Your task to perform on an android device: open a new tab in the chrome app Image 0: 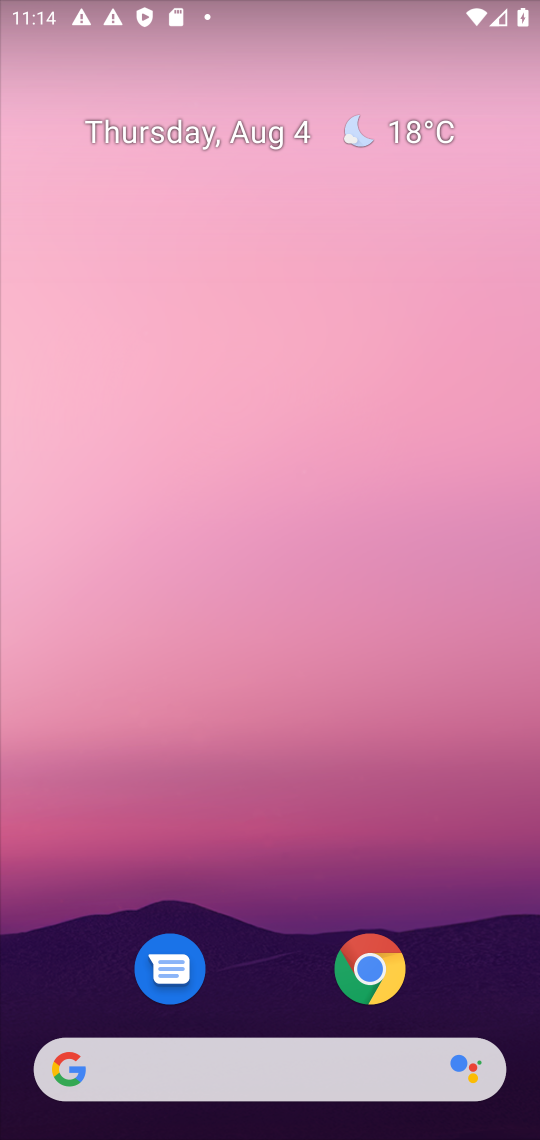
Step 0: drag from (278, 1066) to (232, 331)
Your task to perform on an android device: open a new tab in the chrome app Image 1: 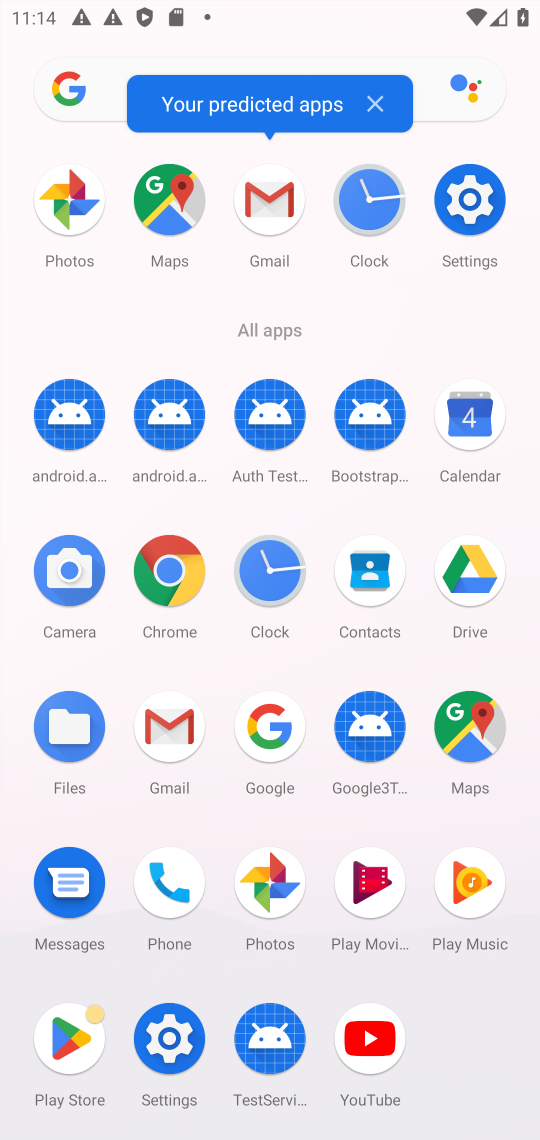
Step 1: click (161, 613)
Your task to perform on an android device: open a new tab in the chrome app Image 2: 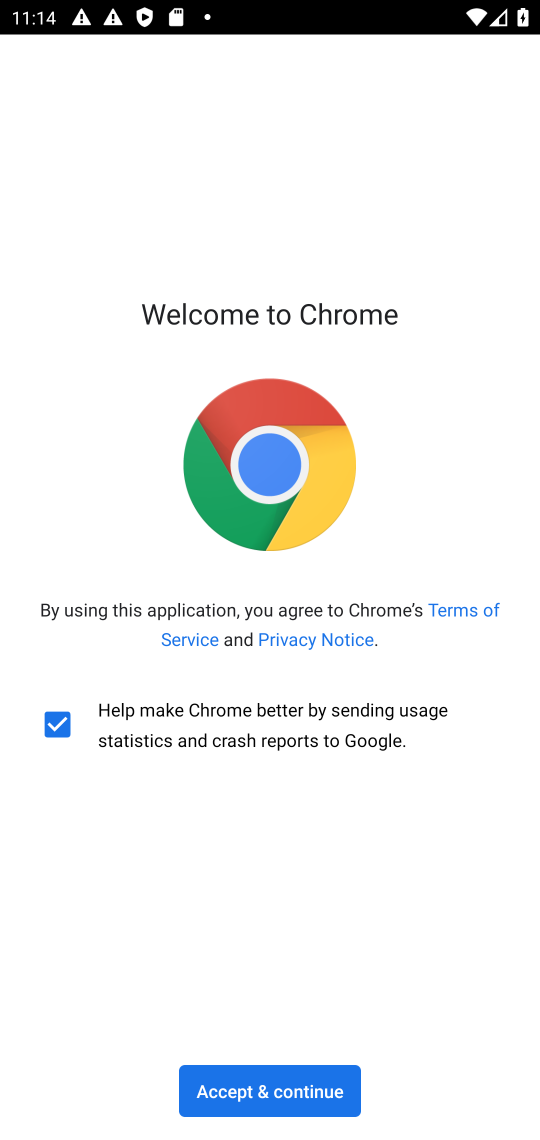
Step 2: click (287, 1086)
Your task to perform on an android device: open a new tab in the chrome app Image 3: 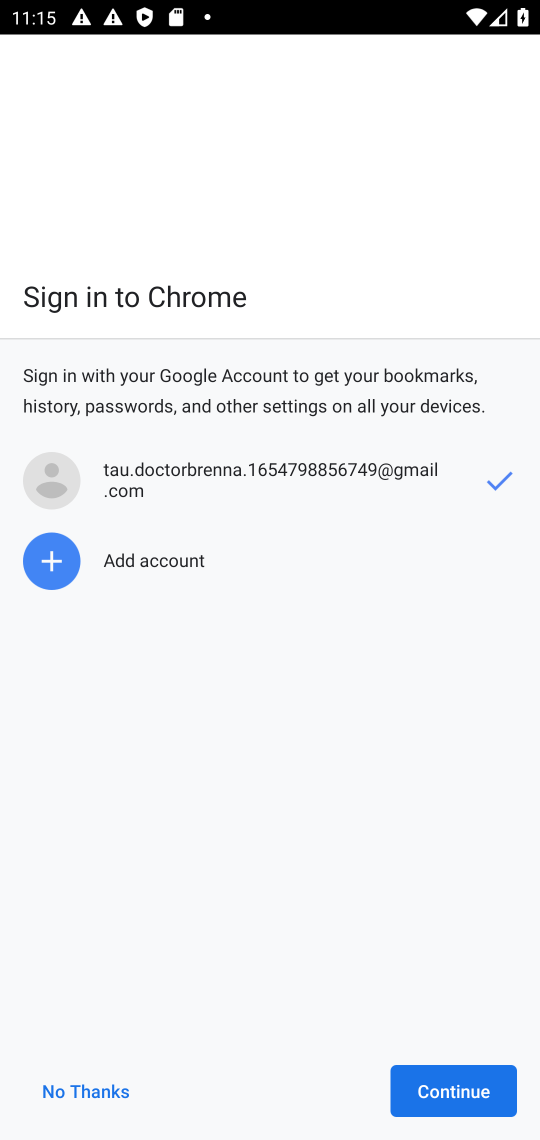
Step 3: click (403, 1082)
Your task to perform on an android device: open a new tab in the chrome app Image 4: 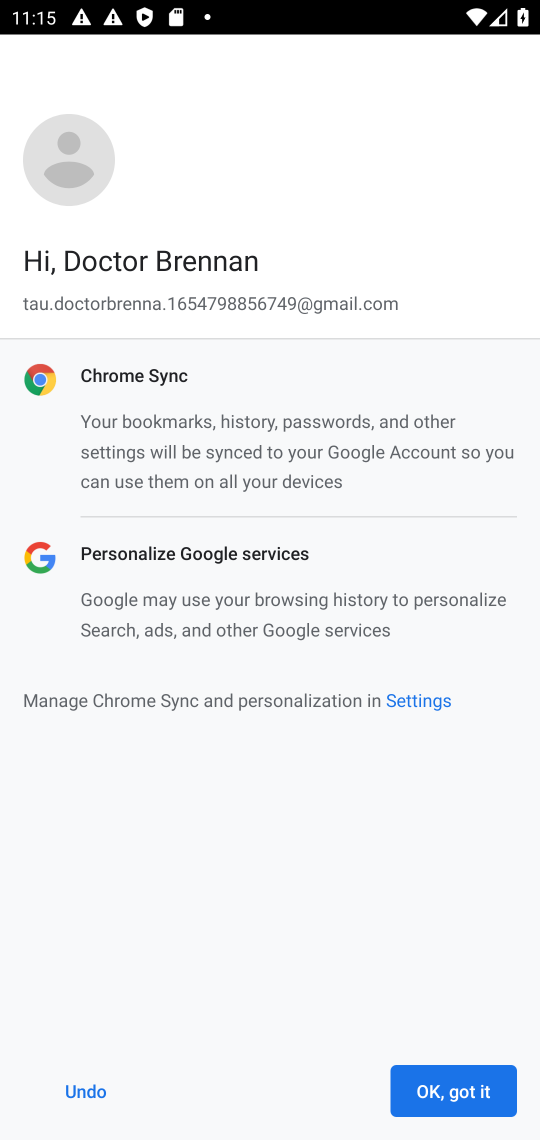
Step 4: click (412, 1075)
Your task to perform on an android device: open a new tab in the chrome app Image 5: 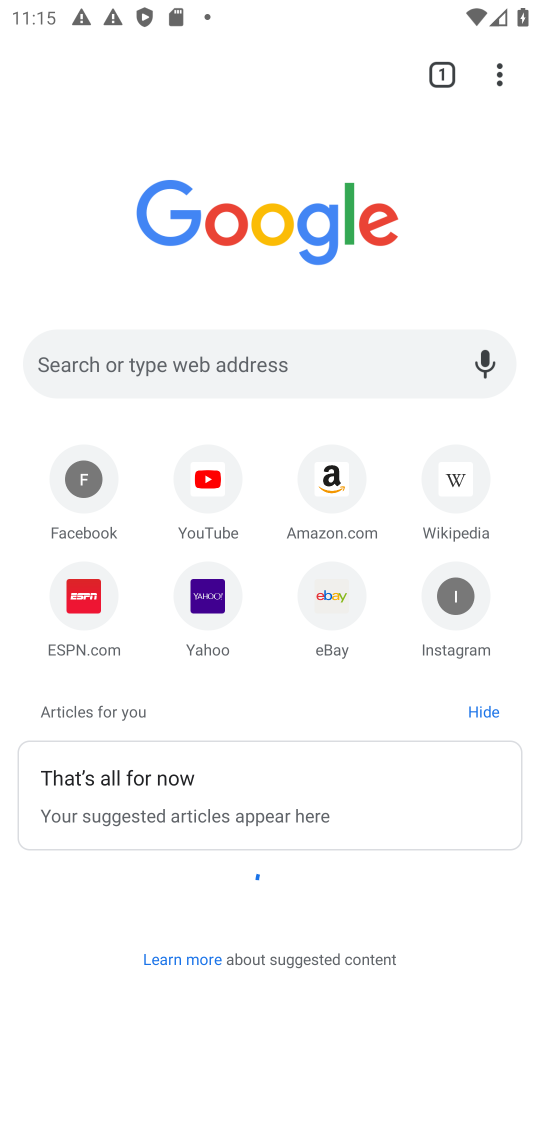
Step 5: click (443, 92)
Your task to perform on an android device: open a new tab in the chrome app Image 6: 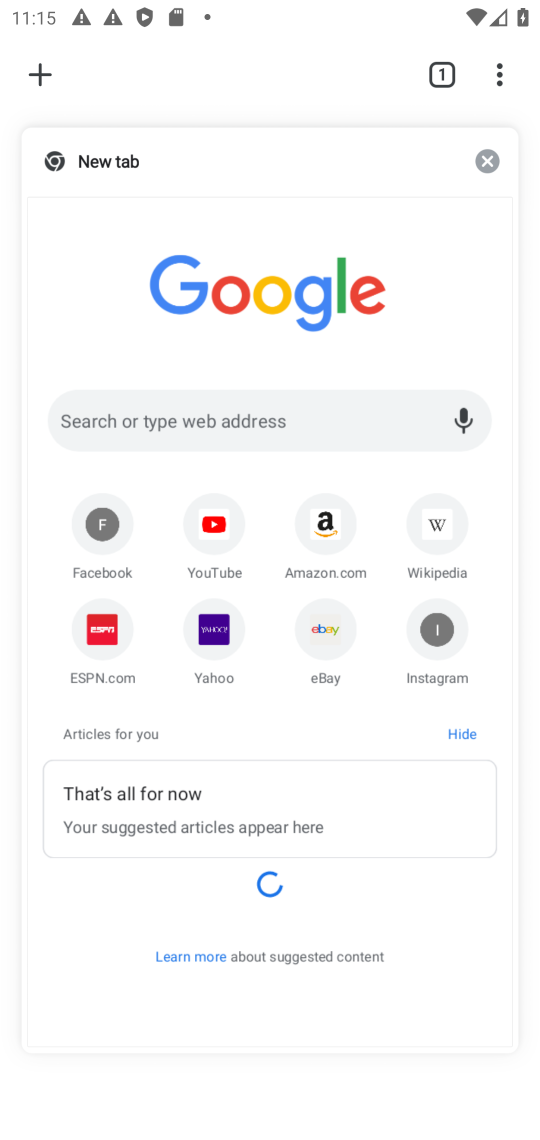
Step 6: click (32, 81)
Your task to perform on an android device: open a new tab in the chrome app Image 7: 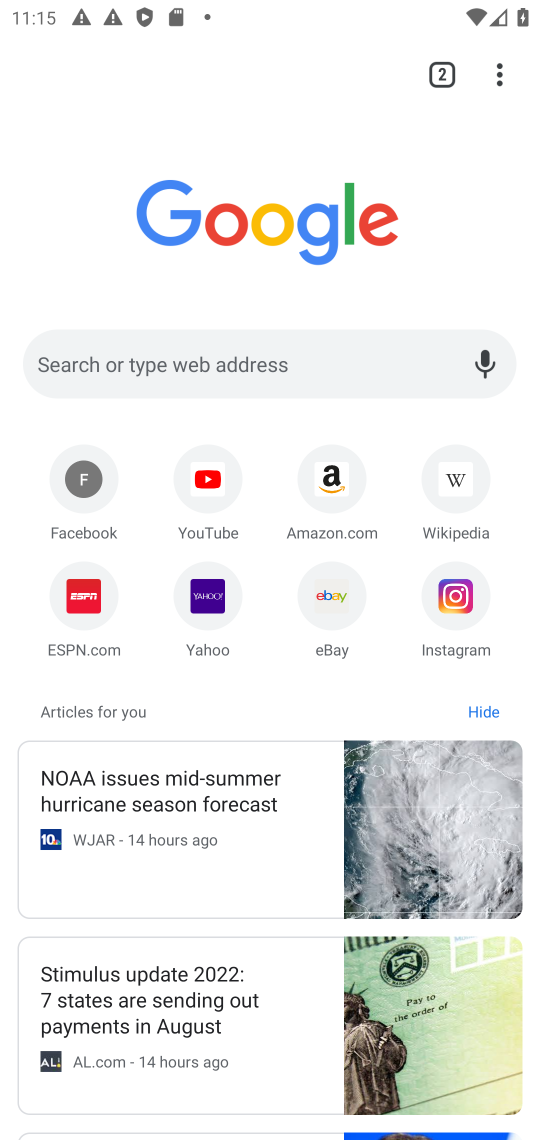
Step 7: task complete